Your task to perform on an android device: Open calendar and show me the third week of next month Image 0: 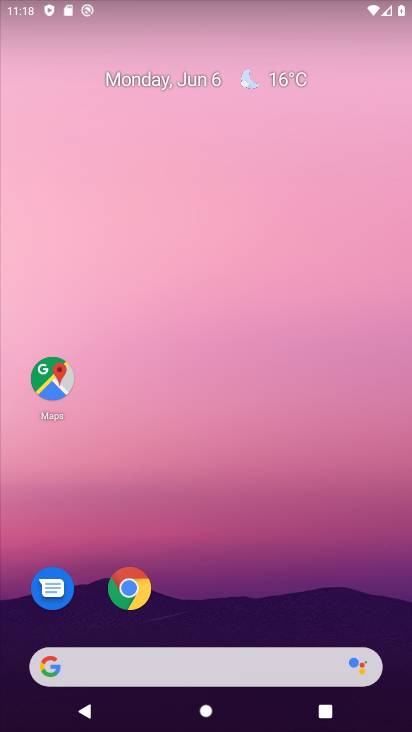
Step 0: drag from (278, 539) to (165, 111)
Your task to perform on an android device: Open calendar and show me the third week of next month Image 1: 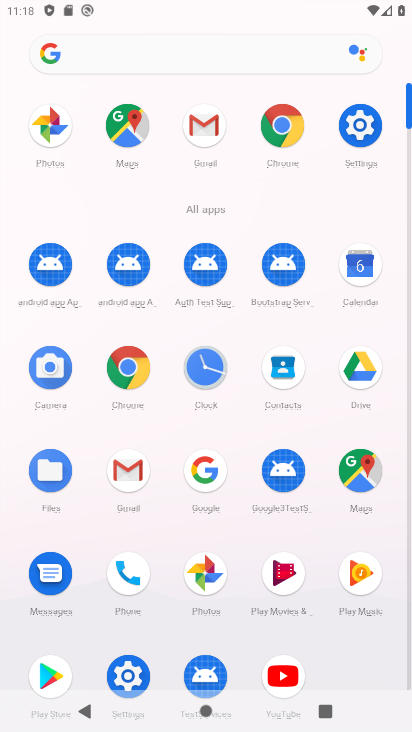
Step 1: click (367, 267)
Your task to perform on an android device: Open calendar and show me the third week of next month Image 2: 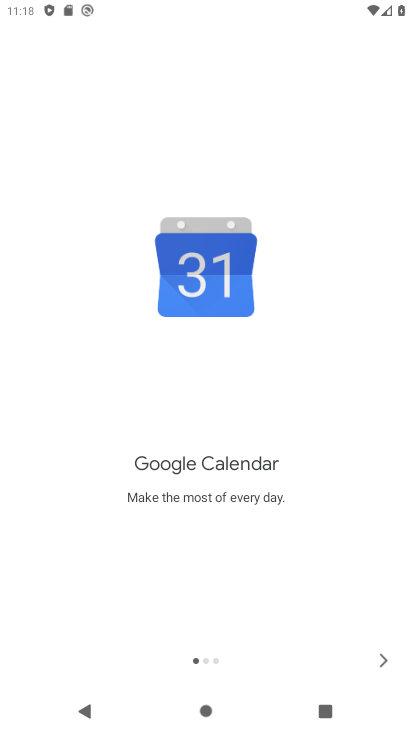
Step 2: click (385, 663)
Your task to perform on an android device: Open calendar and show me the third week of next month Image 3: 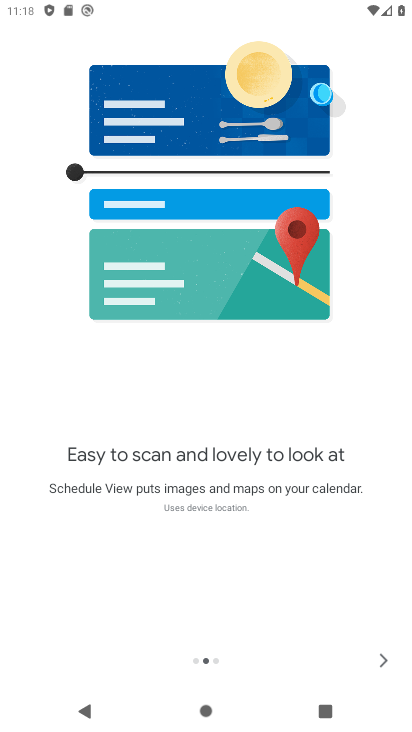
Step 3: click (385, 663)
Your task to perform on an android device: Open calendar and show me the third week of next month Image 4: 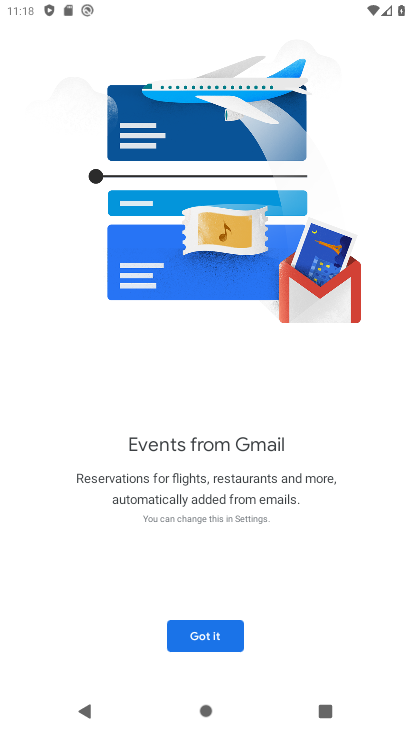
Step 4: click (199, 630)
Your task to perform on an android device: Open calendar and show me the third week of next month Image 5: 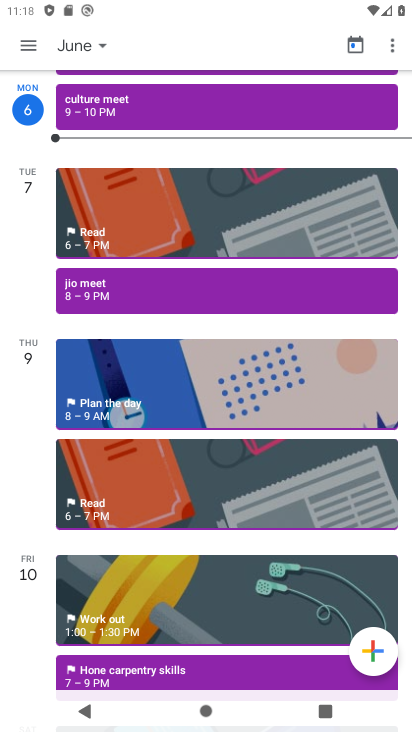
Step 5: click (103, 43)
Your task to perform on an android device: Open calendar and show me the third week of next month Image 6: 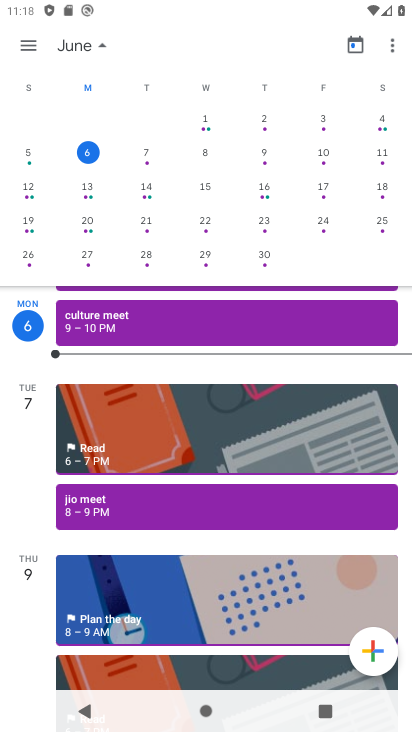
Step 6: drag from (365, 173) to (17, 199)
Your task to perform on an android device: Open calendar and show me the third week of next month Image 7: 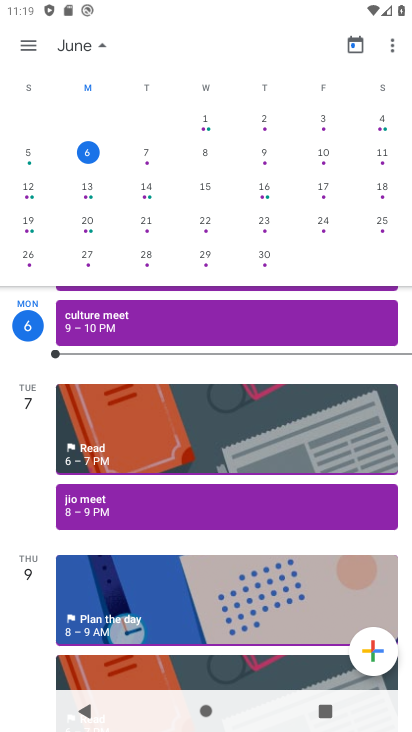
Step 7: drag from (357, 168) to (16, 198)
Your task to perform on an android device: Open calendar and show me the third week of next month Image 8: 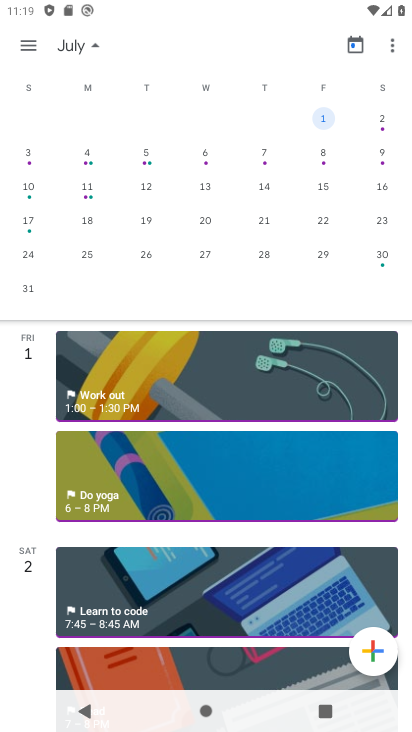
Step 8: click (98, 236)
Your task to perform on an android device: Open calendar and show me the third week of next month Image 9: 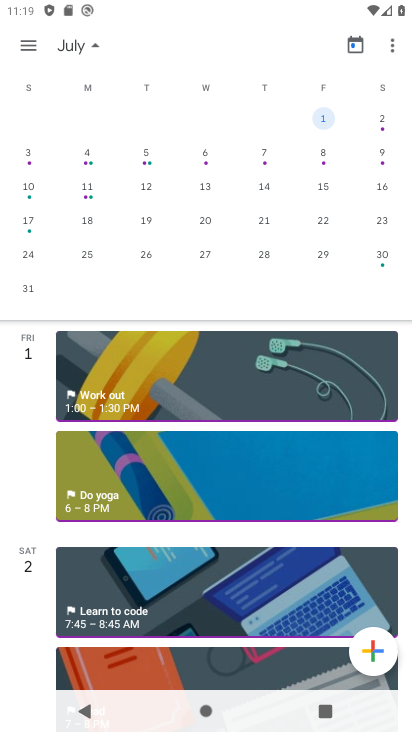
Step 9: click (89, 225)
Your task to perform on an android device: Open calendar and show me the third week of next month Image 10: 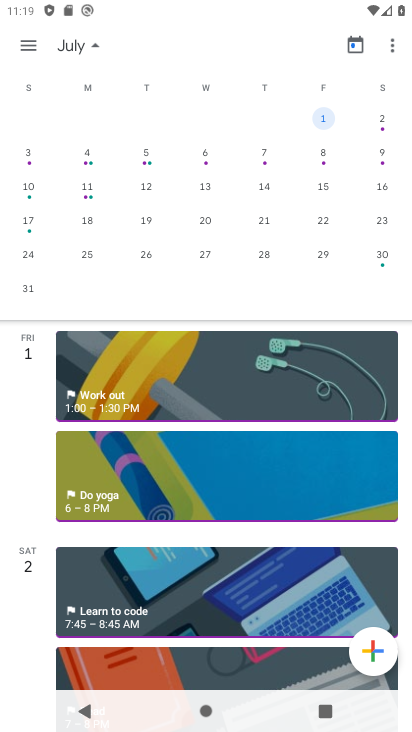
Step 10: click (86, 224)
Your task to perform on an android device: Open calendar and show me the third week of next month Image 11: 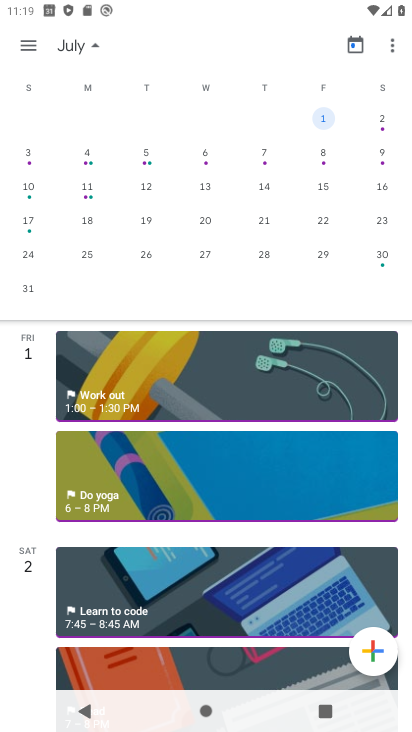
Step 11: click (86, 223)
Your task to perform on an android device: Open calendar and show me the third week of next month Image 12: 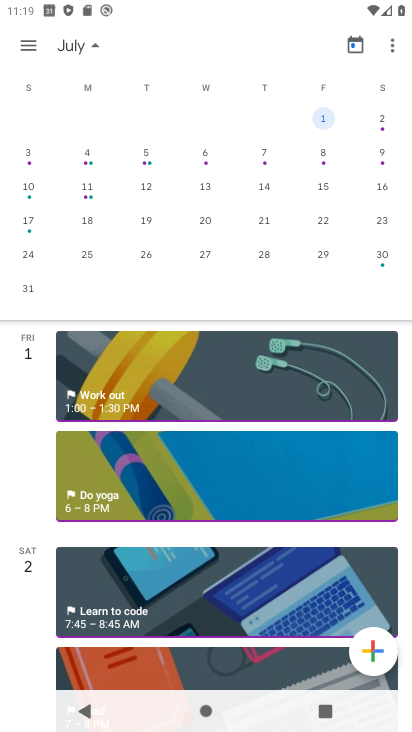
Step 12: click (89, 223)
Your task to perform on an android device: Open calendar and show me the third week of next month Image 13: 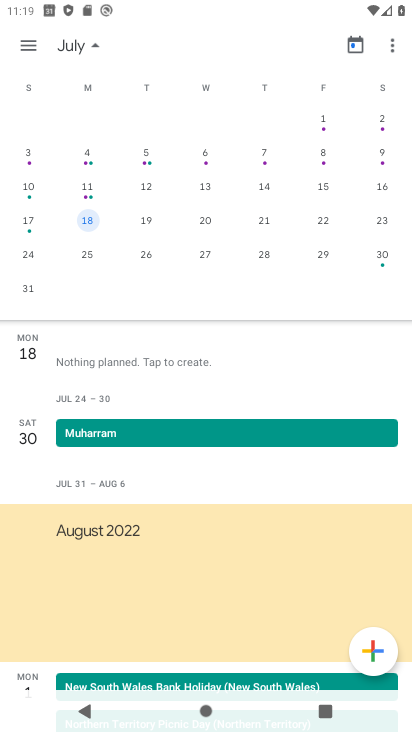
Step 13: click (29, 44)
Your task to perform on an android device: Open calendar and show me the third week of next month Image 14: 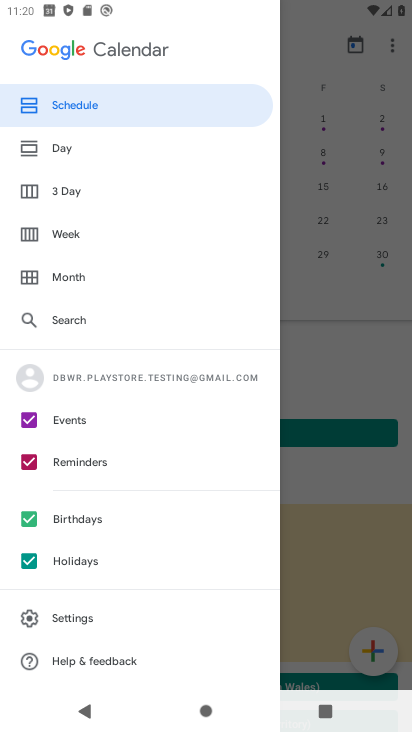
Step 14: click (71, 232)
Your task to perform on an android device: Open calendar and show me the third week of next month Image 15: 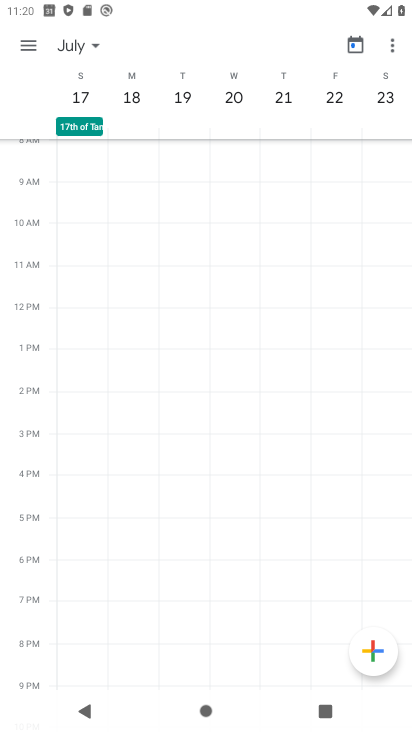
Step 15: task complete